Your task to perform on an android device: Open Google Image 0: 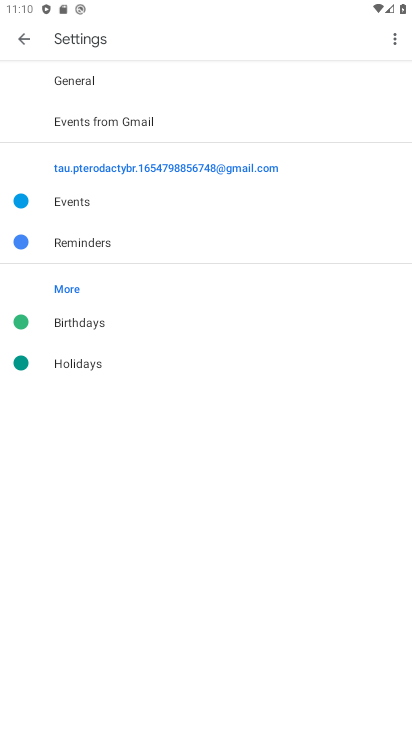
Step 0: press home button
Your task to perform on an android device: Open Google Image 1: 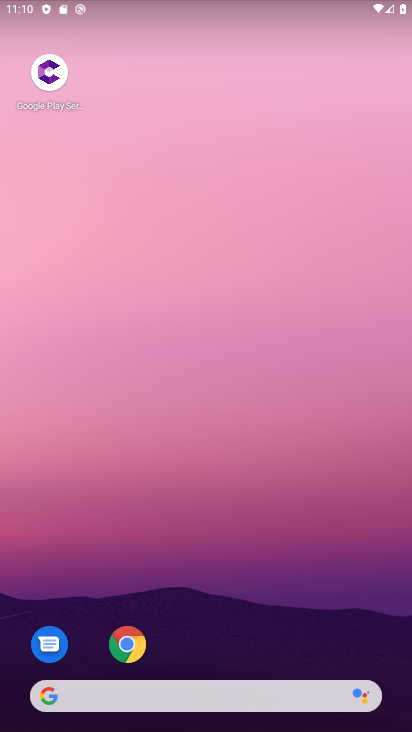
Step 1: drag from (397, 643) to (325, 2)
Your task to perform on an android device: Open Google Image 2: 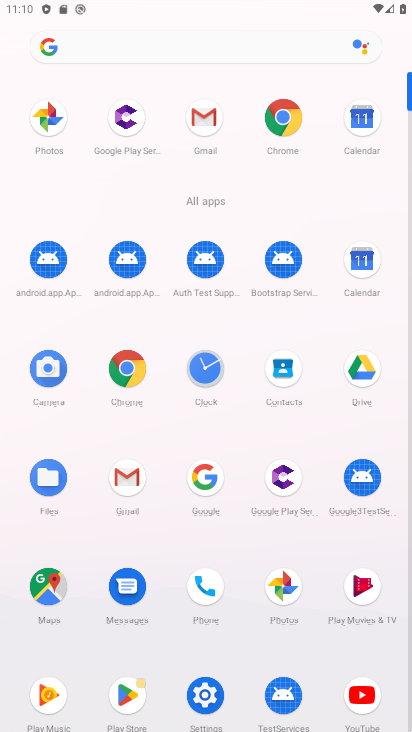
Step 2: click (217, 473)
Your task to perform on an android device: Open Google Image 3: 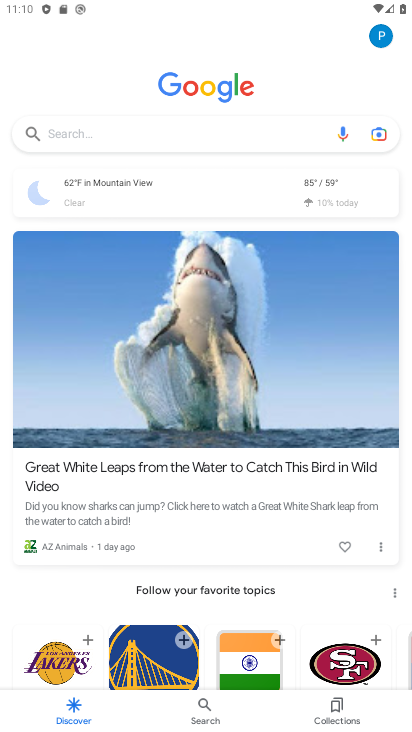
Step 3: task complete